Your task to perform on an android device: Show me recent news Image 0: 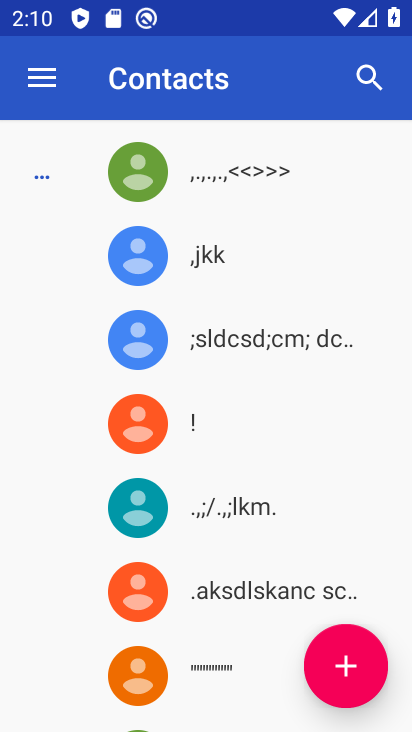
Step 0: press home button
Your task to perform on an android device: Show me recent news Image 1: 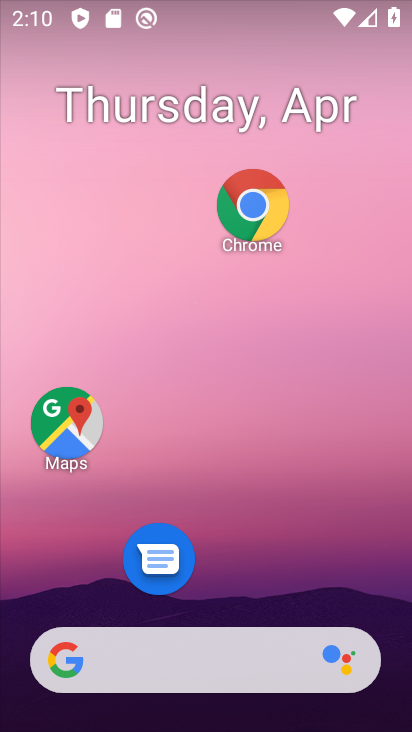
Step 1: task complete